Your task to perform on an android device: Go to notification settings Image 0: 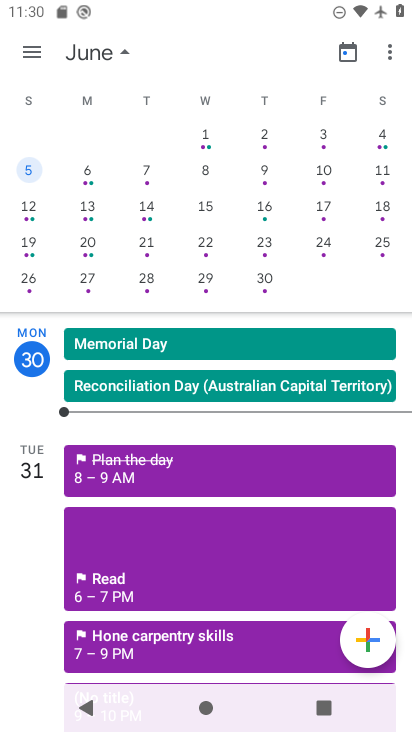
Step 0: press home button
Your task to perform on an android device: Go to notification settings Image 1: 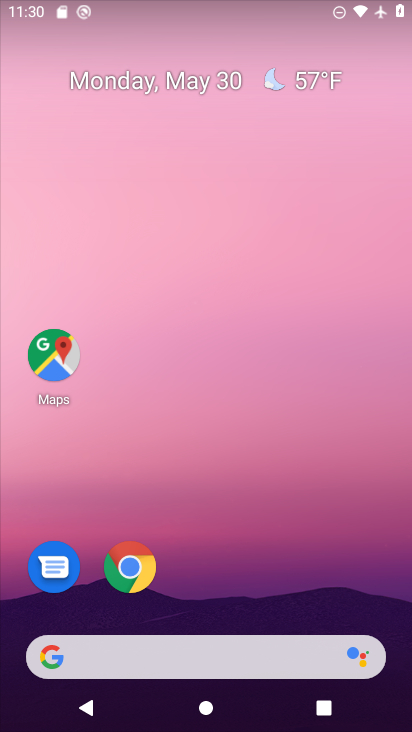
Step 1: drag from (233, 579) to (227, 122)
Your task to perform on an android device: Go to notification settings Image 2: 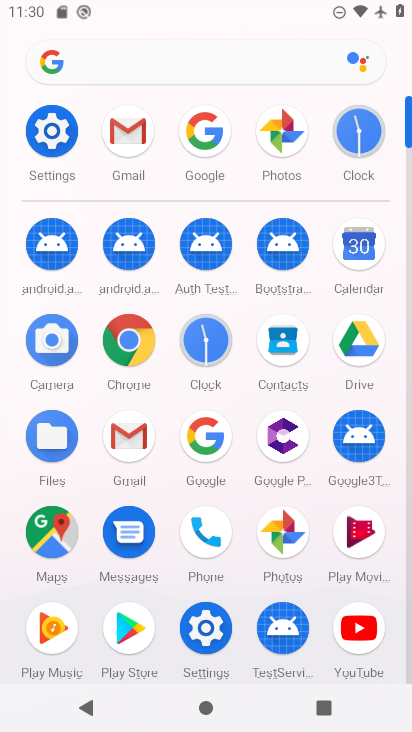
Step 2: click (68, 133)
Your task to perform on an android device: Go to notification settings Image 3: 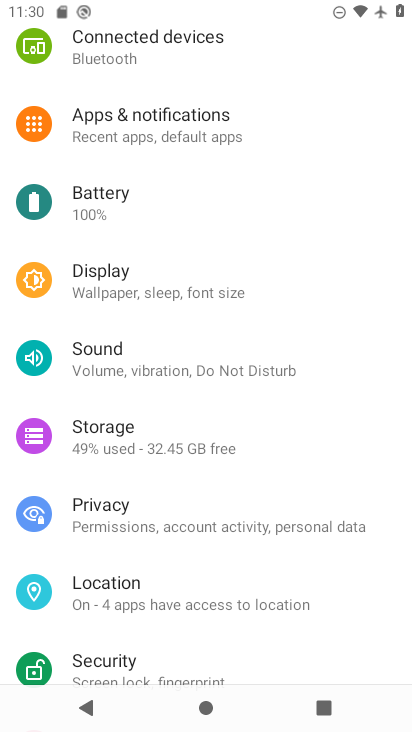
Step 3: click (187, 141)
Your task to perform on an android device: Go to notification settings Image 4: 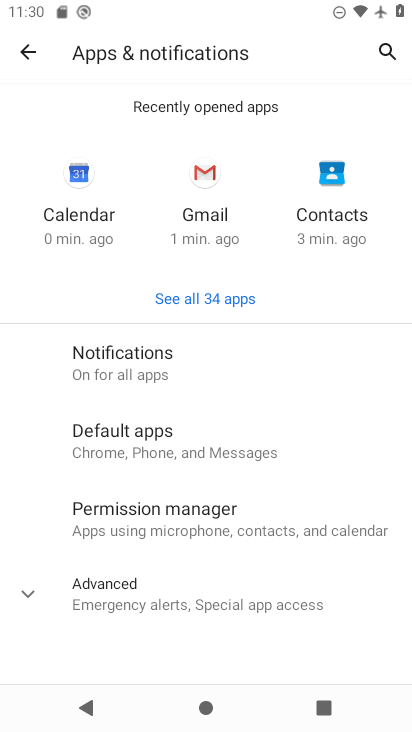
Step 4: click (119, 367)
Your task to perform on an android device: Go to notification settings Image 5: 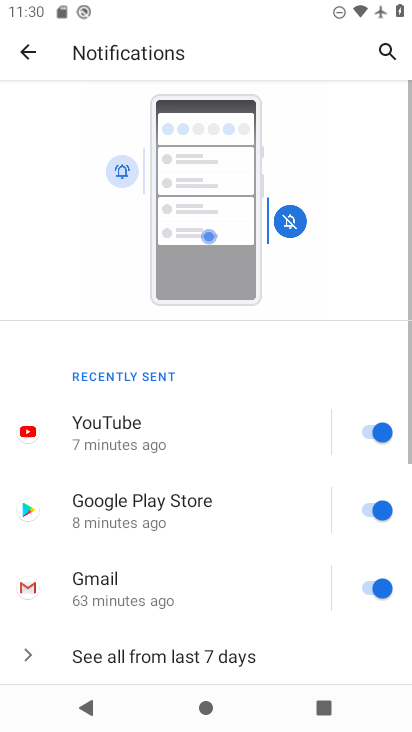
Step 5: task complete